Your task to perform on an android device: delete browsing data in the chrome app Image 0: 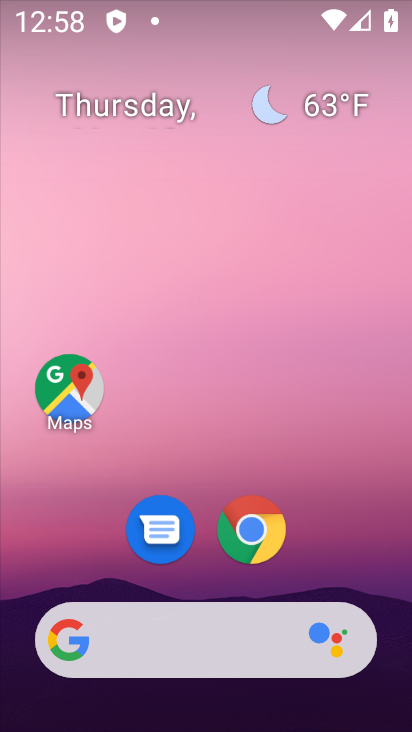
Step 0: click (254, 529)
Your task to perform on an android device: delete browsing data in the chrome app Image 1: 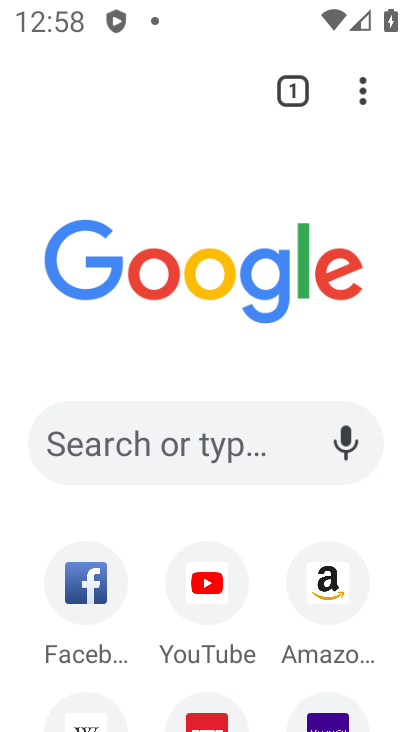
Step 1: click (361, 93)
Your task to perform on an android device: delete browsing data in the chrome app Image 2: 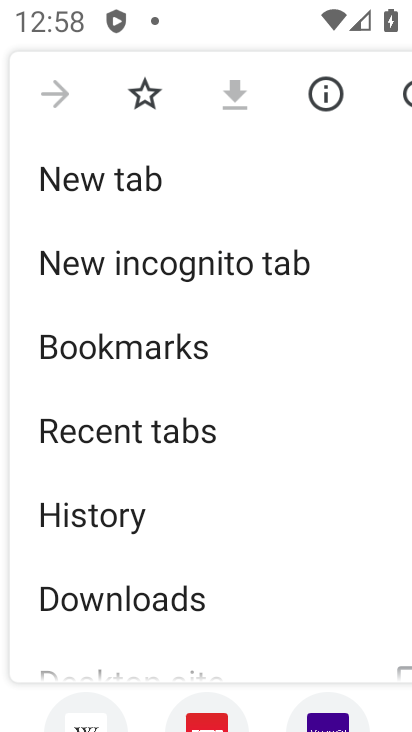
Step 2: drag from (186, 514) to (246, 432)
Your task to perform on an android device: delete browsing data in the chrome app Image 3: 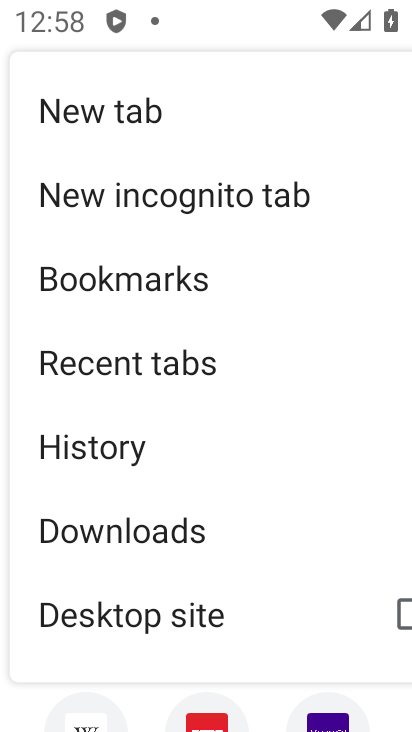
Step 3: drag from (133, 563) to (202, 463)
Your task to perform on an android device: delete browsing data in the chrome app Image 4: 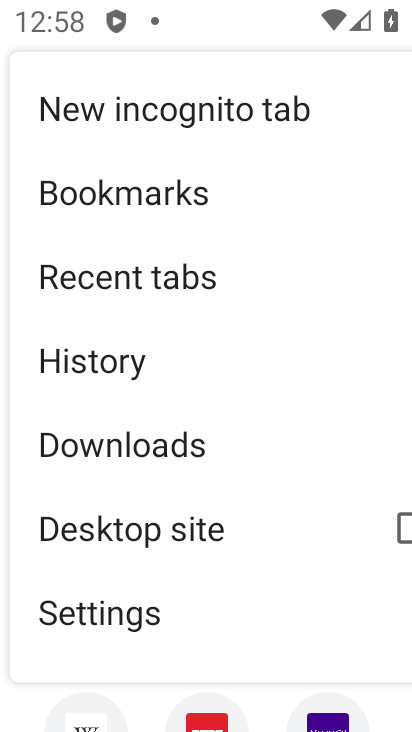
Step 4: drag from (118, 572) to (170, 498)
Your task to perform on an android device: delete browsing data in the chrome app Image 5: 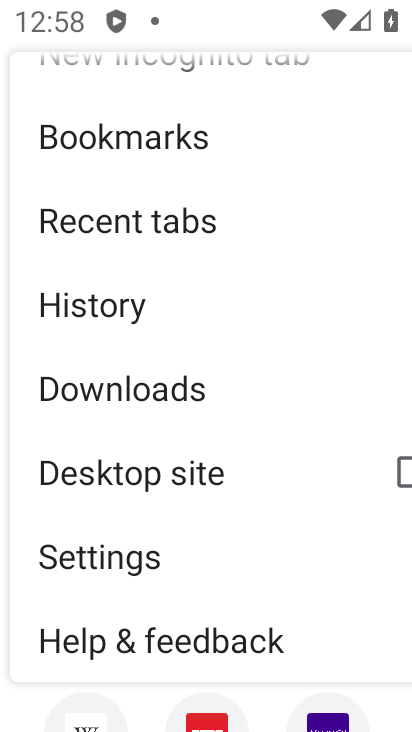
Step 5: click (125, 552)
Your task to perform on an android device: delete browsing data in the chrome app Image 6: 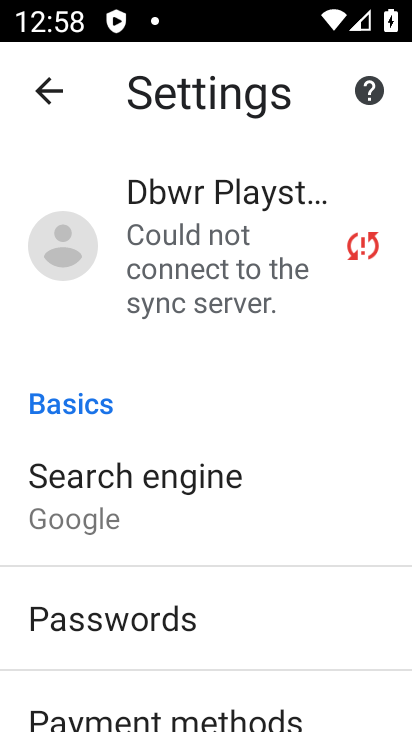
Step 6: drag from (162, 647) to (244, 518)
Your task to perform on an android device: delete browsing data in the chrome app Image 7: 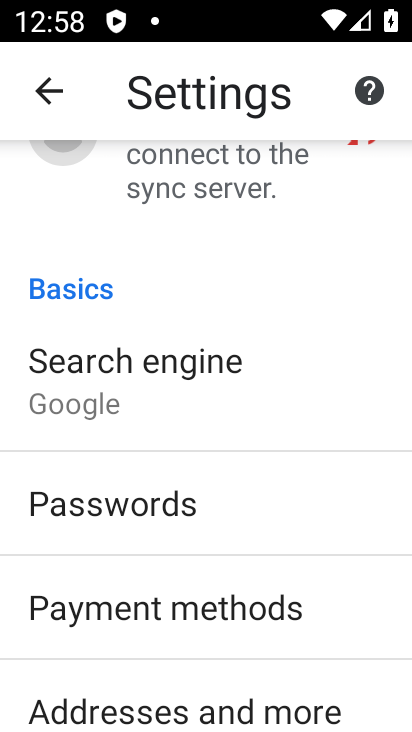
Step 7: drag from (136, 642) to (191, 555)
Your task to perform on an android device: delete browsing data in the chrome app Image 8: 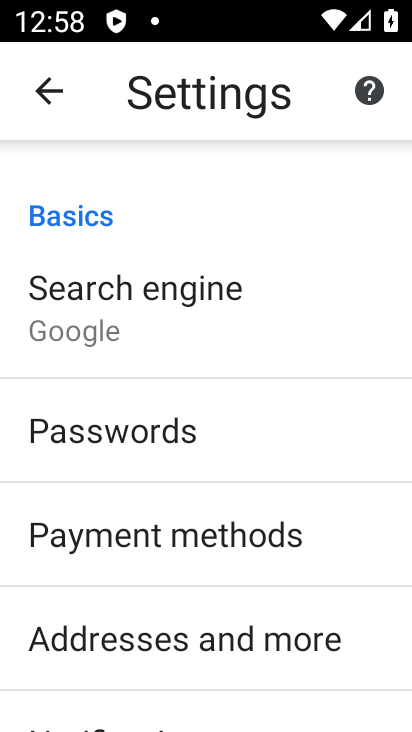
Step 8: drag from (152, 628) to (222, 516)
Your task to perform on an android device: delete browsing data in the chrome app Image 9: 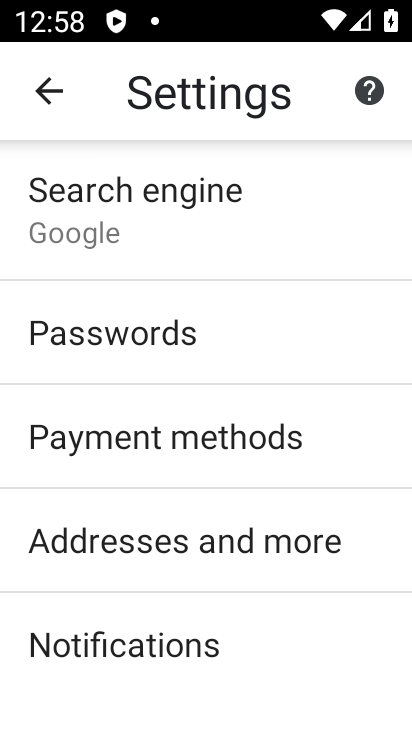
Step 9: drag from (121, 627) to (225, 507)
Your task to perform on an android device: delete browsing data in the chrome app Image 10: 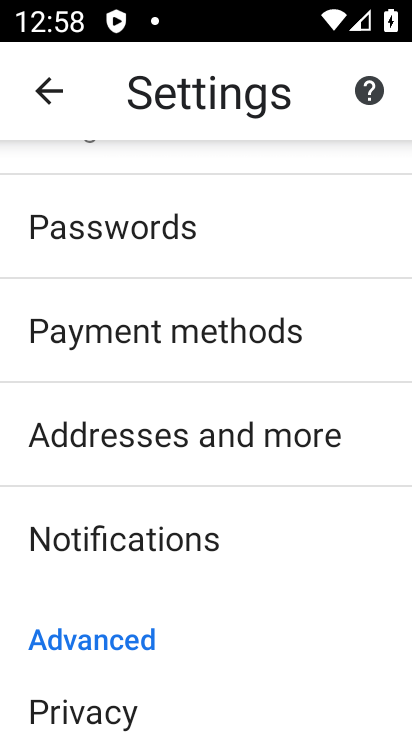
Step 10: drag from (149, 677) to (240, 518)
Your task to perform on an android device: delete browsing data in the chrome app Image 11: 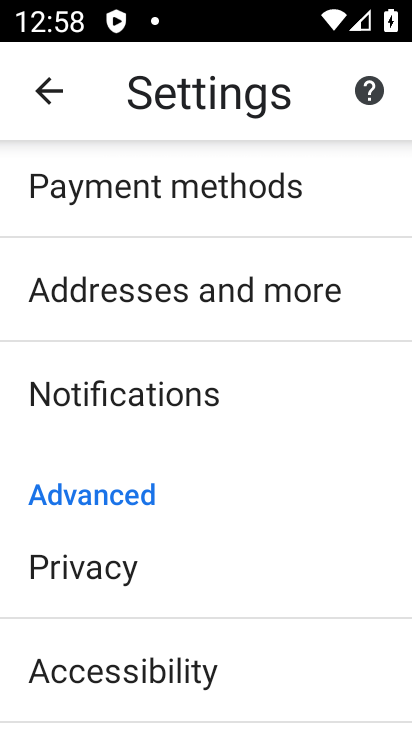
Step 11: click (93, 561)
Your task to perform on an android device: delete browsing data in the chrome app Image 12: 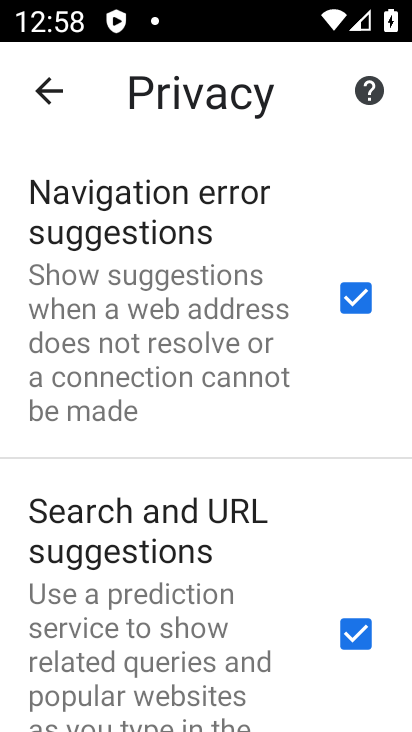
Step 12: drag from (112, 623) to (174, 418)
Your task to perform on an android device: delete browsing data in the chrome app Image 13: 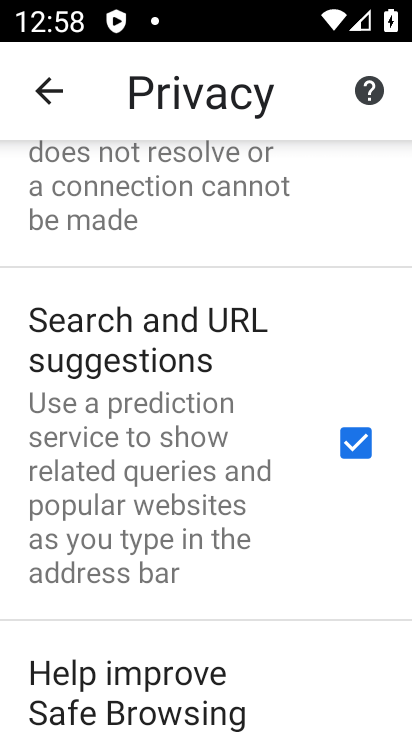
Step 13: drag from (98, 641) to (145, 507)
Your task to perform on an android device: delete browsing data in the chrome app Image 14: 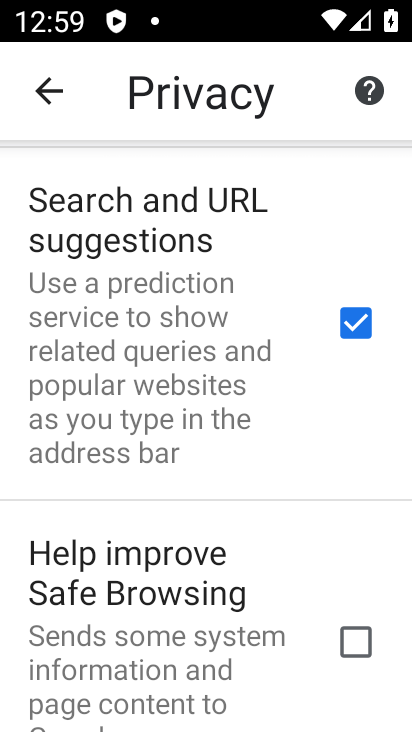
Step 14: drag from (96, 658) to (167, 474)
Your task to perform on an android device: delete browsing data in the chrome app Image 15: 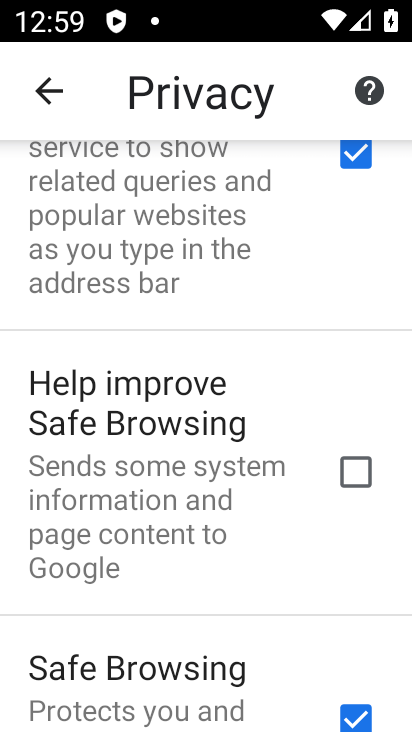
Step 15: drag from (104, 667) to (171, 468)
Your task to perform on an android device: delete browsing data in the chrome app Image 16: 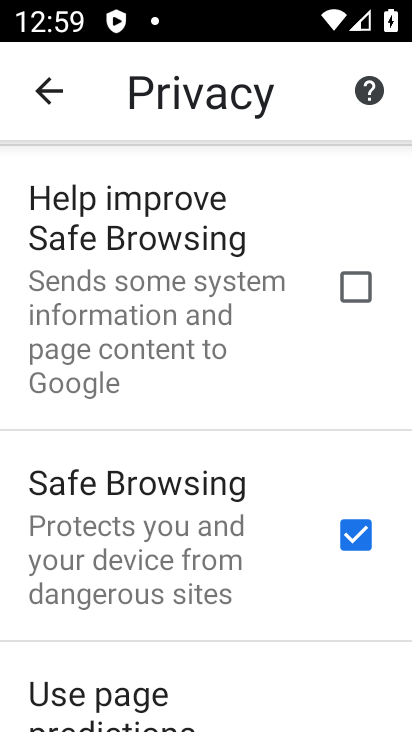
Step 16: drag from (80, 676) to (167, 461)
Your task to perform on an android device: delete browsing data in the chrome app Image 17: 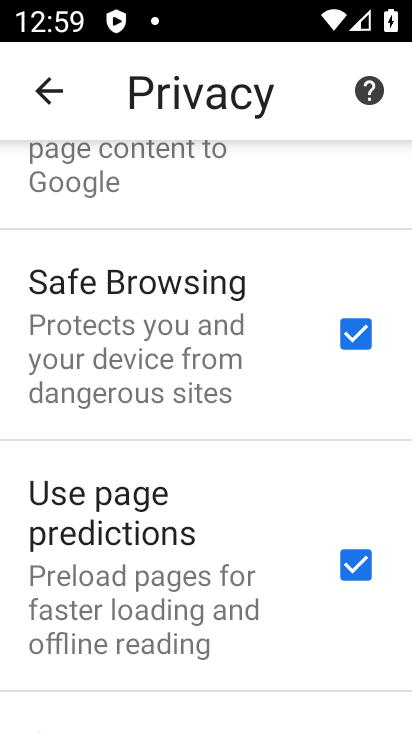
Step 17: drag from (123, 615) to (197, 390)
Your task to perform on an android device: delete browsing data in the chrome app Image 18: 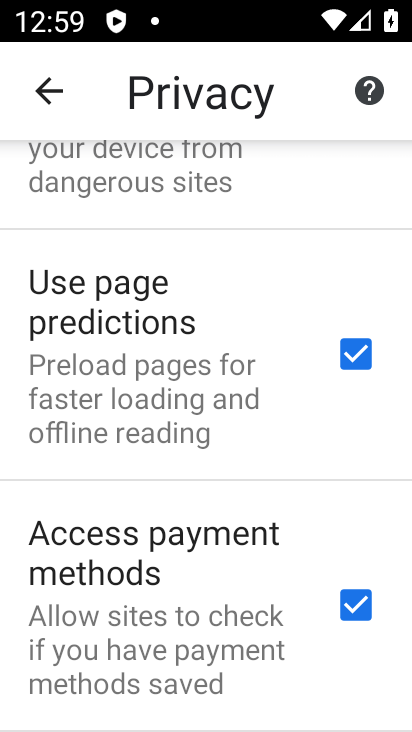
Step 18: drag from (117, 566) to (178, 447)
Your task to perform on an android device: delete browsing data in the chrome app Image 19: 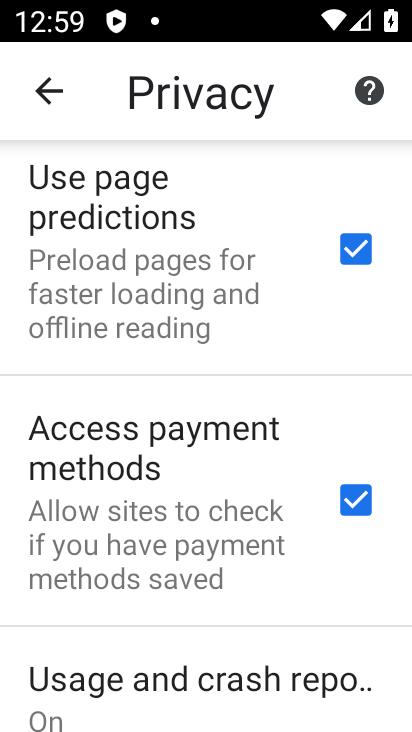
Step 19: drag from (99, 641) to (182, 517)
Your task to perform on an android device: delete browsing data in the chrome app Image 20: 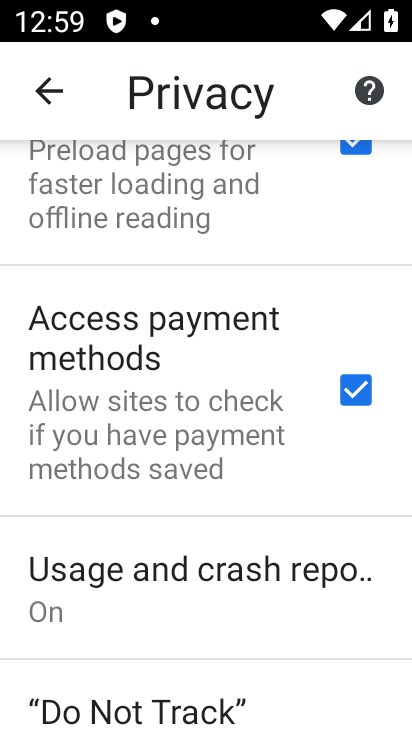
Step 20: drag from (89, 616) to (210, 443)
Your task to perform on an android device: delete browsing data in the chrome app Image 21: 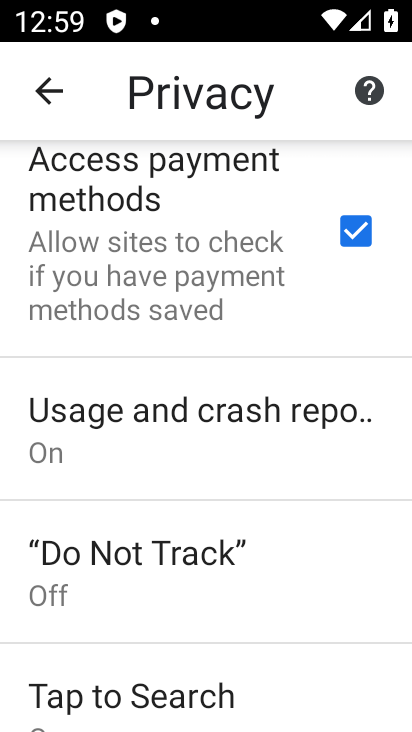
Step 21: drag from (139, 616) to (202, 489)
Your task to perform on an android device: delete browsing data in the chrome app Image 22: 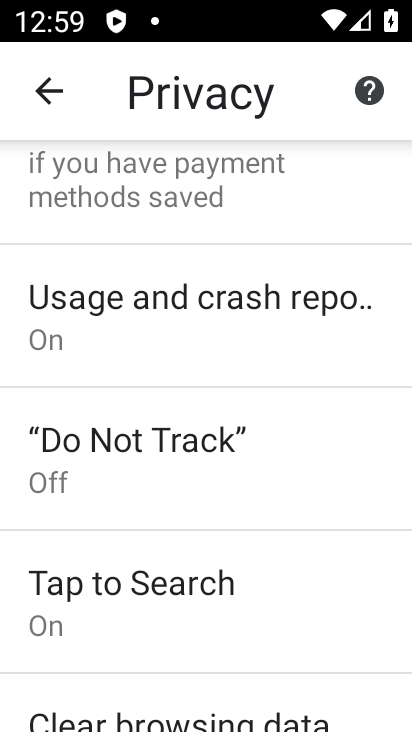
Step 22: drag from (128, 614) to (220, 471)
Your task to perform on an android device: delete browsing data in the chrome app Image 23: 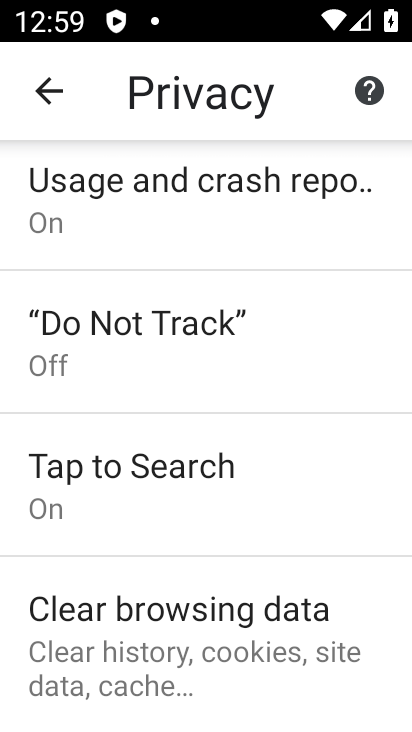
Step 23: click (191, 610)
Your task to perform on an android device: delete browsing data in the chrome app Image 24: 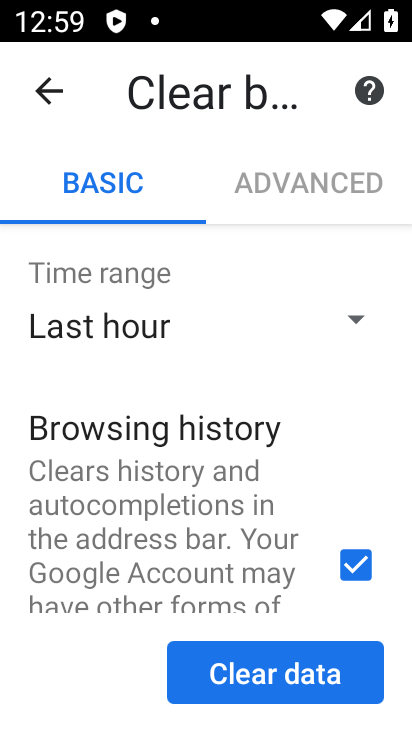
Step 24: click (306, 669)
Your task to perform on an android device: delete browsing data in the chrome app Image 25: 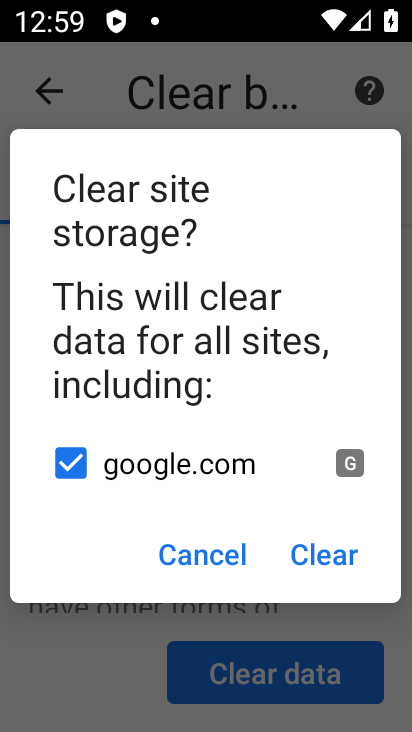
Step 25: click (309, 557)
Your task to perform on an android device: delete browsing data in the chrome app Image 26: 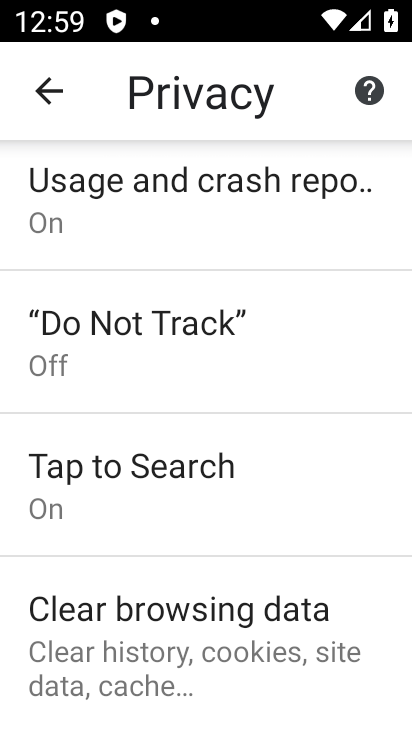
Step 26: task complete